Your task to perform on an android device: Search for Italian restaurants on Maps Image 0: 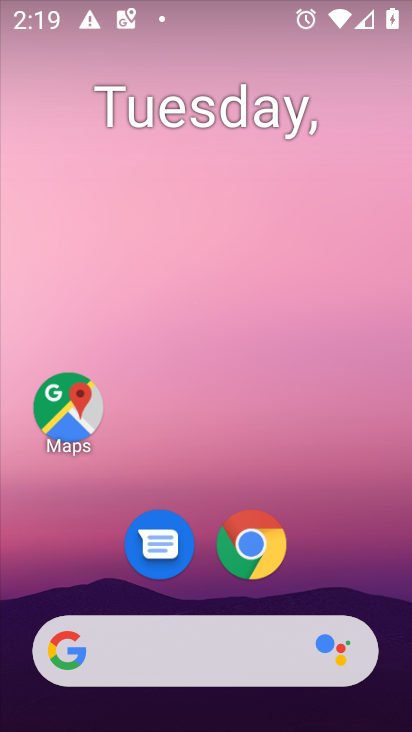
Step 0: drag from (327, 541) to (66, 15)
Your task to perform on an android device: Search for Italian restaurants on Maps Image 1: 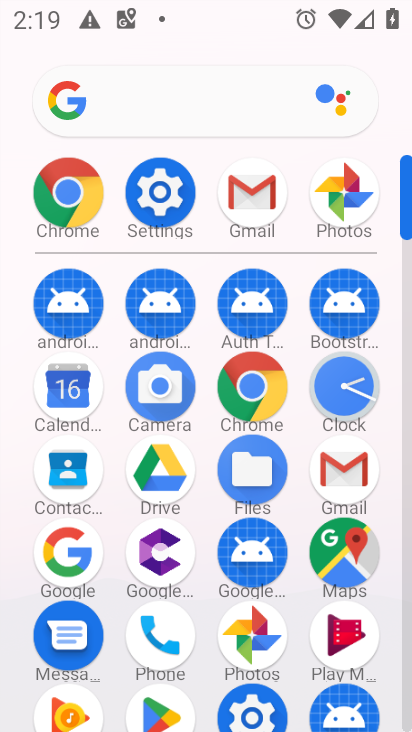
Step 1: click (350, 558)
Your task to perform on an android device: Search for Italian restaurants on Maps Image 2: 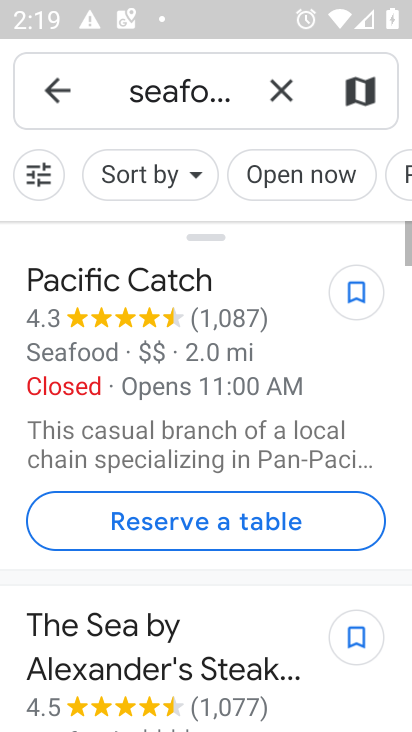
Step 2: click (271, 91)
Your task to perform on an android device: Search for Italian restaurants on Maps Image 3: 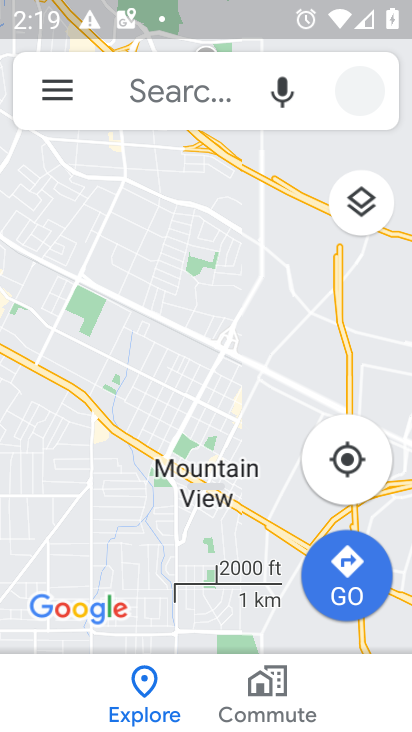
Step 3: click (151, 92)
Your task to perform on an android device: Search for Italian restaurants on Maps Image 4: 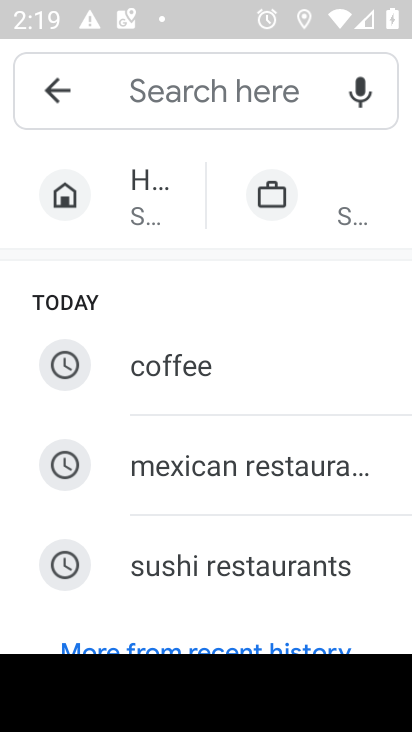
Step 4: type "Italian restaurants"
Your task to perform on an android device: Search for Italian restaurants on Maps Image 5: 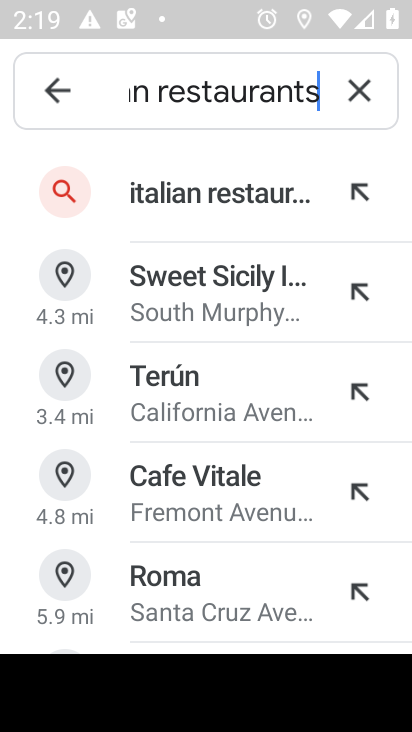
Step 5: type ""
Your task to perform on an android device: Search for Italian restaurants on Maps Image 6: 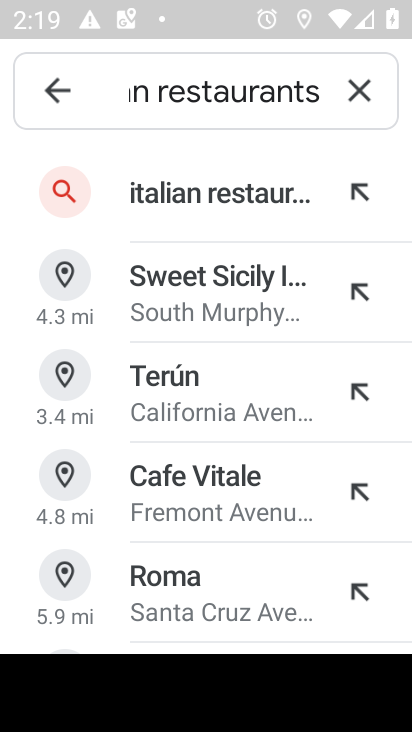
Step 6: press enter
Your task to perform on an android device: Search for Italian restaurants on Maps Image 7: 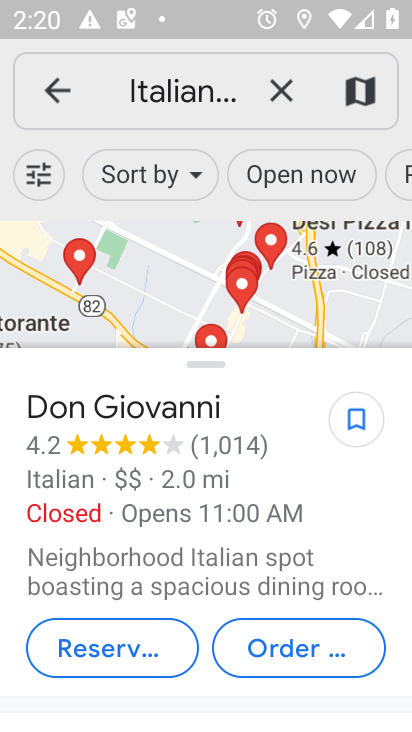
Step 7: task complete